Your task to perform on an android device: Open accessibility settings Image 0: 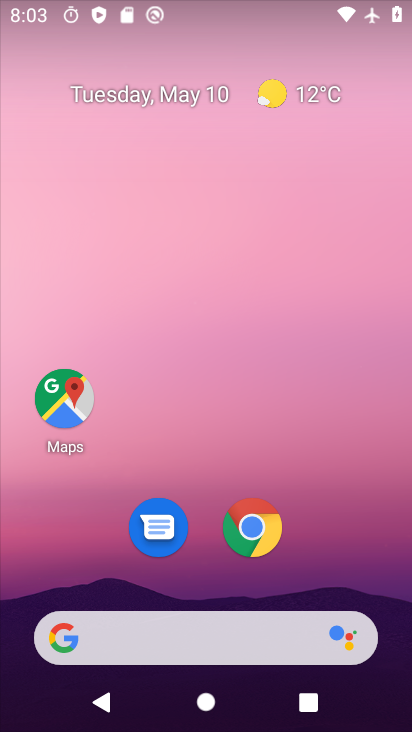
Step 0: drag from (335, 547) to (318, 109)
Your task to perform on an android device: Open accessibility settings Image 1: 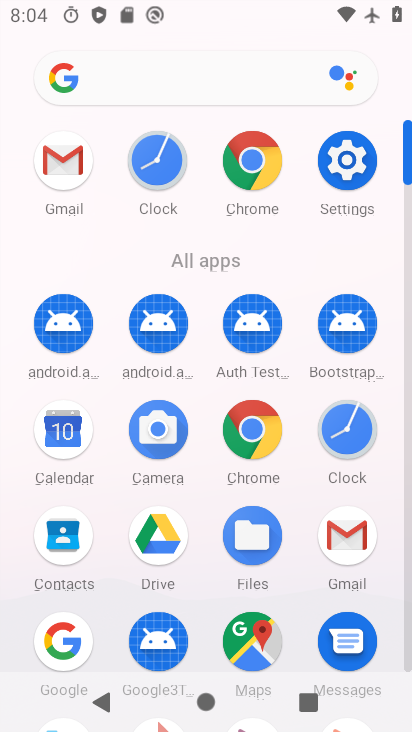
Step 1: click (337, 145)
Your task to perform on an android device: Open accessibility settings Image 2: 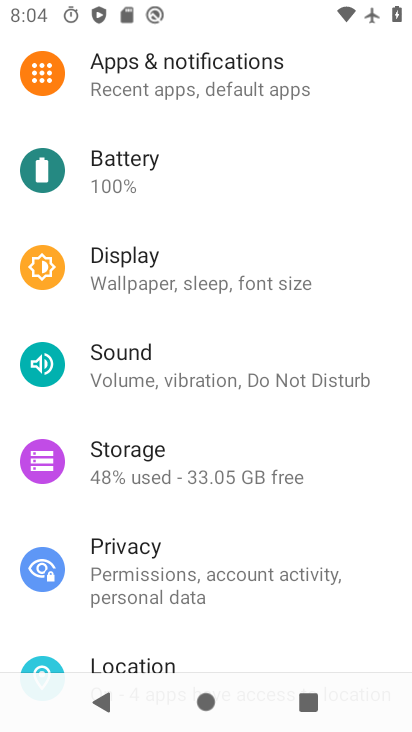
Step 2: drag from (210, 193) to (194, 633)
Your task to perform on an android device: Open accessibility settings Image 3: 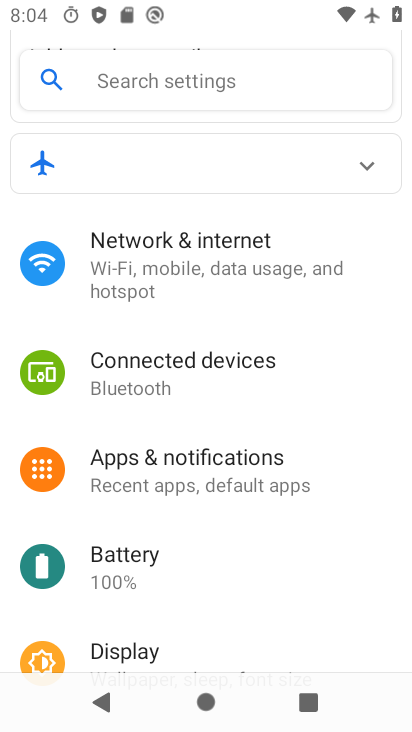
Step 3: drag from (194, 586) to (244, 199)
Your task to perform on an android device: Open accessibility settings Image 4: 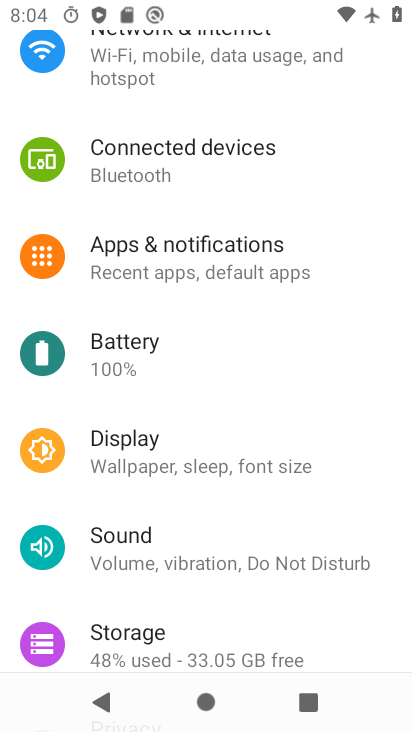
Step 4: drag from (252, 634) to (293, 193)
Your task to perform on an android device: Open accessibility settings Image 5: 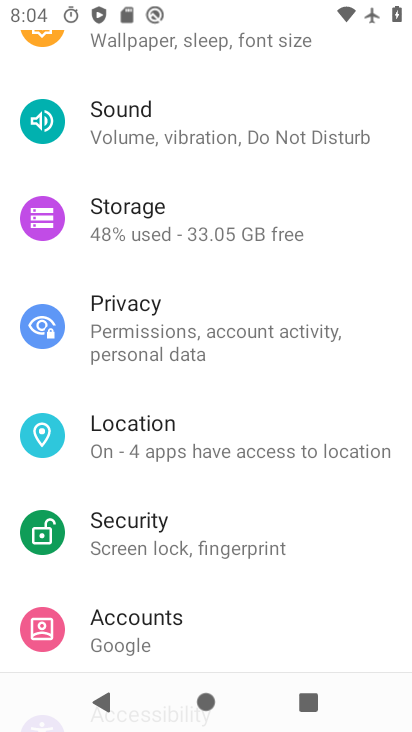
Step 5: drag from (316, 539) to (342, 133)
Your task to perform on an android device: Open accessibility settings Image 6: 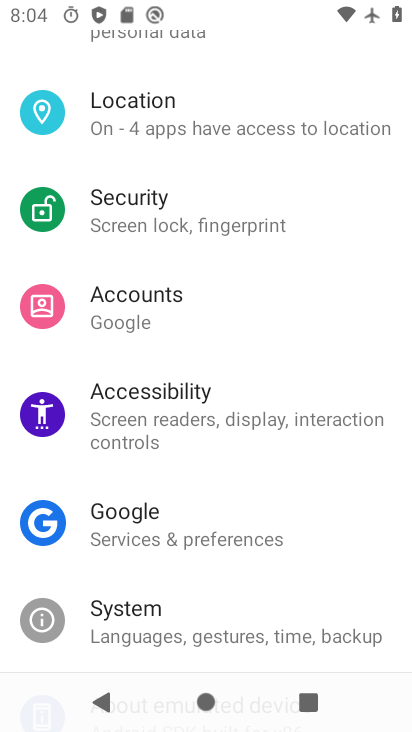
Step 6: click (244, 428)
Your task to perform on an android device: Open accessibility settings Image 7: 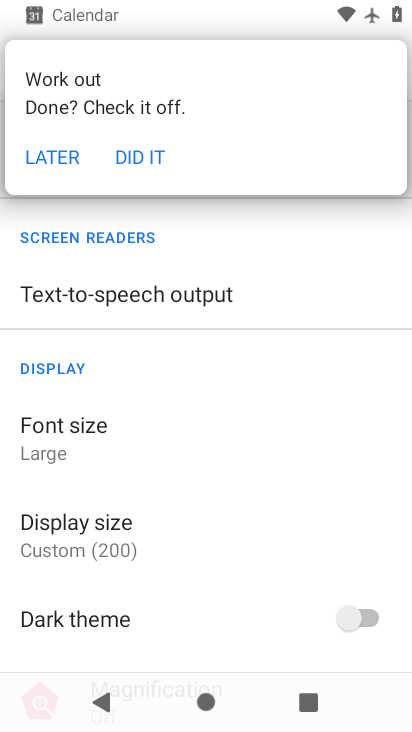
Step 7: task complete